Your task to perform on an android device: manage bookmarks in the chrome app Image 0: 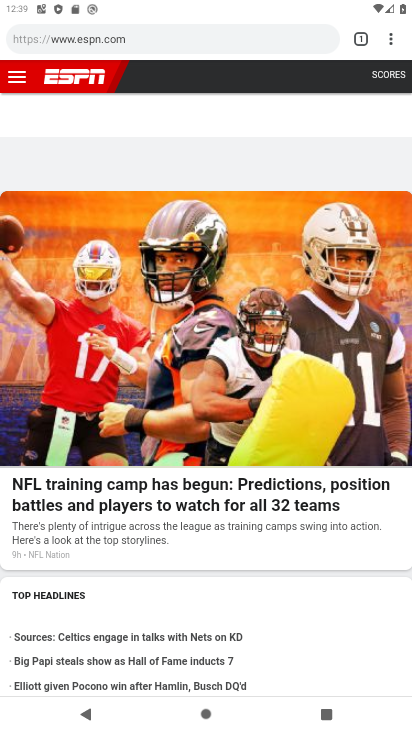
Step 0: press home button
Your task to perform on an android device: manage bookmarks in the chrome app Image 1: 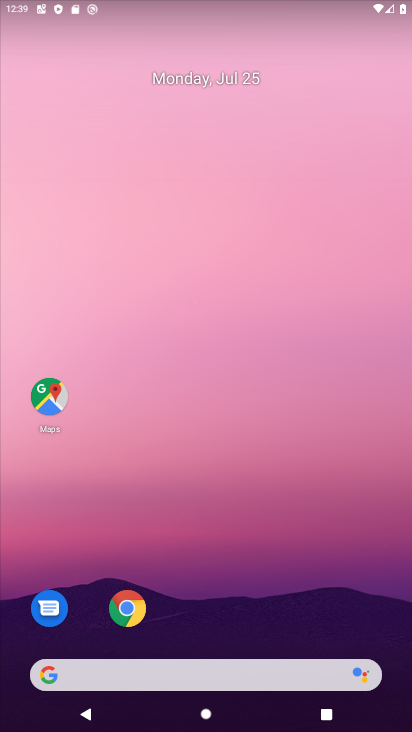
Step 1: click (125, 611)
Your task to perform on an android device: manage bookmarks in the chrome app Image 2: 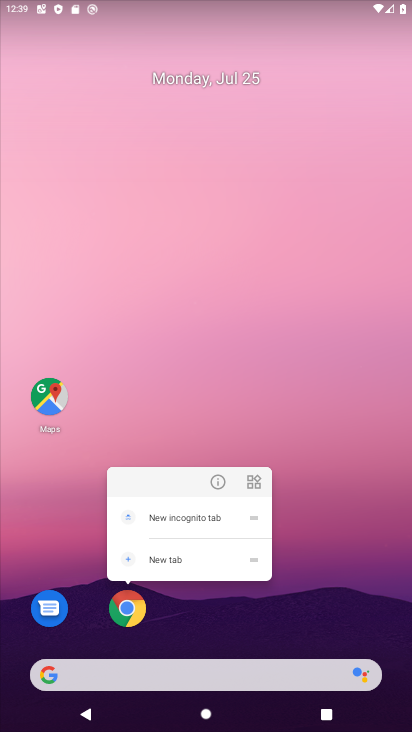
Step 2: click (125, 611)
Your task to perform on an android device: manage bookmarks in the chrome app Image 3: 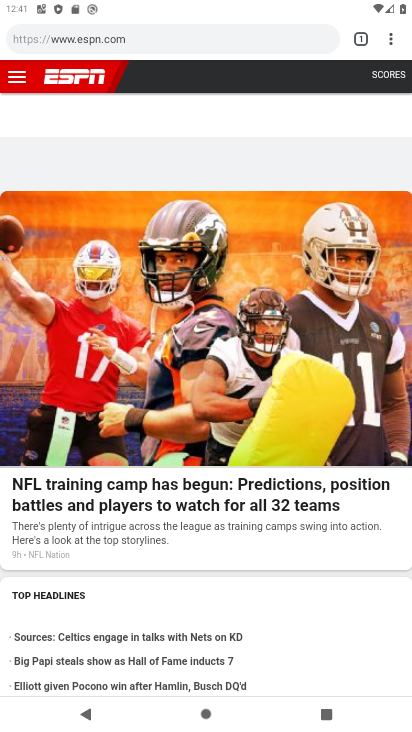
Step 3: press home button
Your task to perform on an android device: manage bookmarks in the chrome app Image 4: 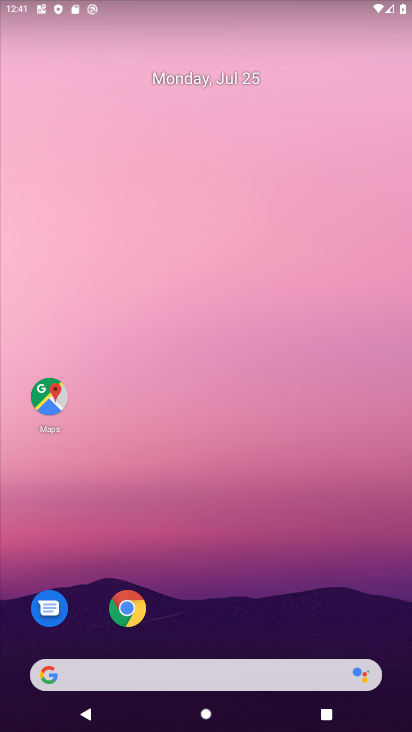
Step 4: click (130, 618)
Your task to perform on an android device: manage bookmarks in the chrome app Image 5: 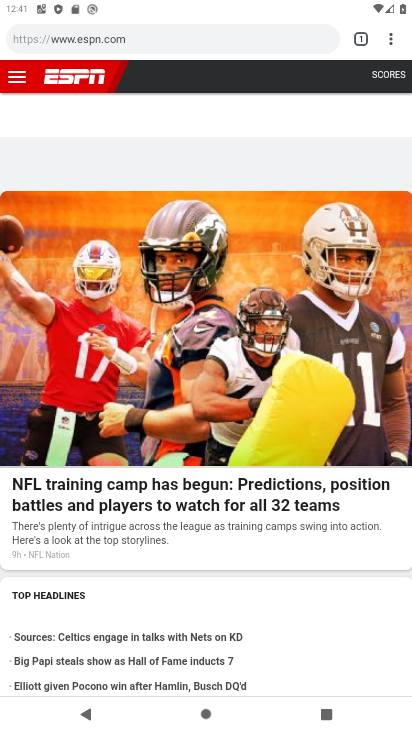
Step 5: click (389, 37)
Your task to perform on an android device: manage bookmarks in the chrome app Image 6: 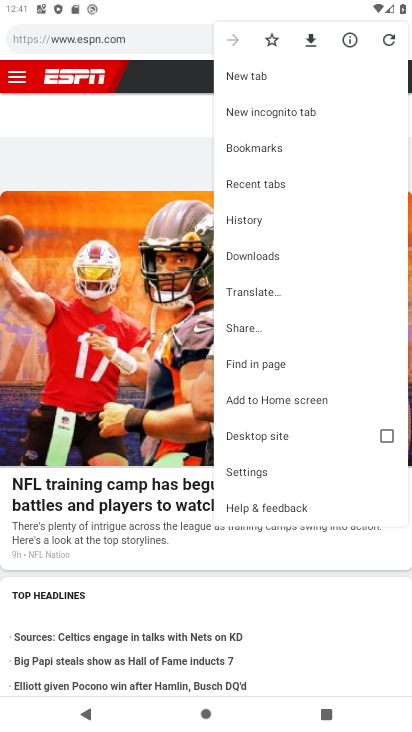
Step 6: click (268, 156)
Your task to perform on an android device: manage bookmarks in the chrome app Image 7: 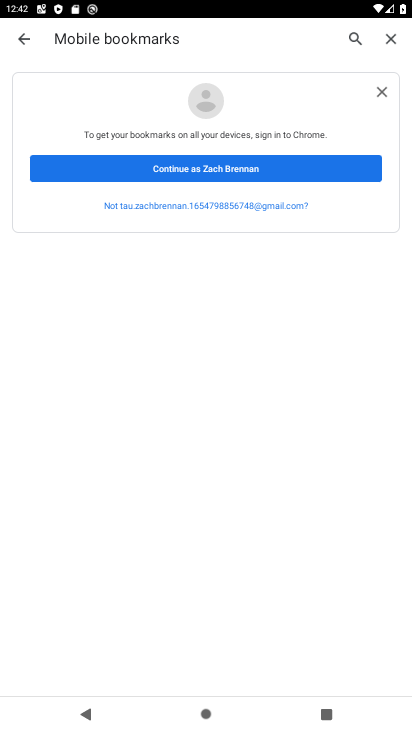
Step 7: click (209, 166)
Your task to perform on an android device: manage bookmarks in the chrome app Image 8: 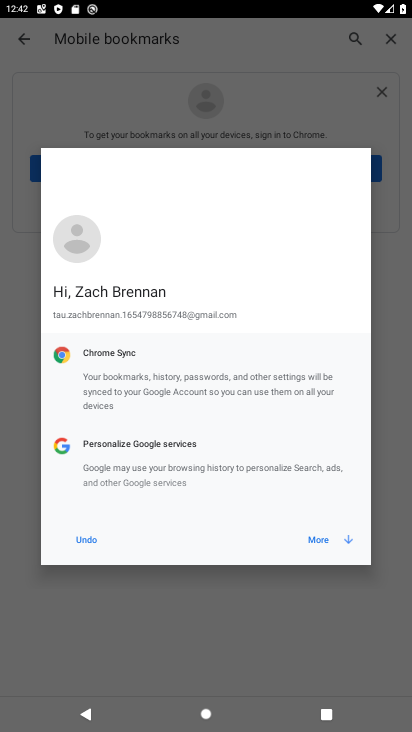
Step 8: click (319, 545)
Your task to perform on an android device: manage bookmarks in the chrome app Image 9: 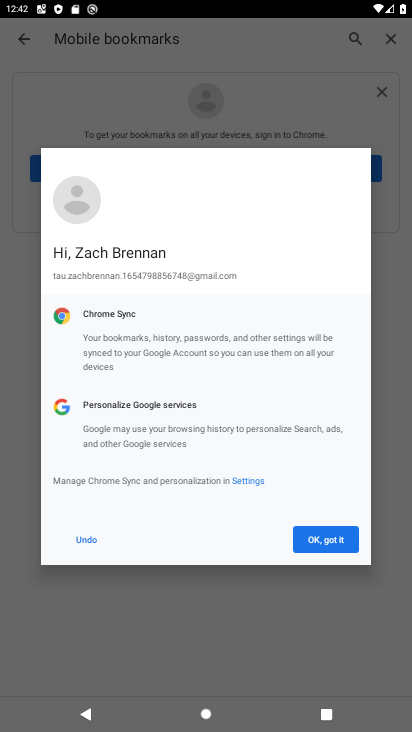
Step 9: click (319, 545)
Your task to perform on an android device: manage bookmarks in the chrome app Image 10: 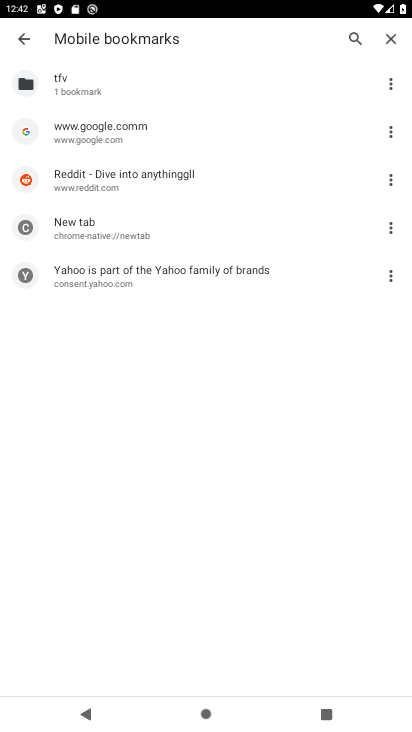
Step 10: click (394, 272)
Your task to perform on an android device: manage bookmarks in the chrome app Image 11: 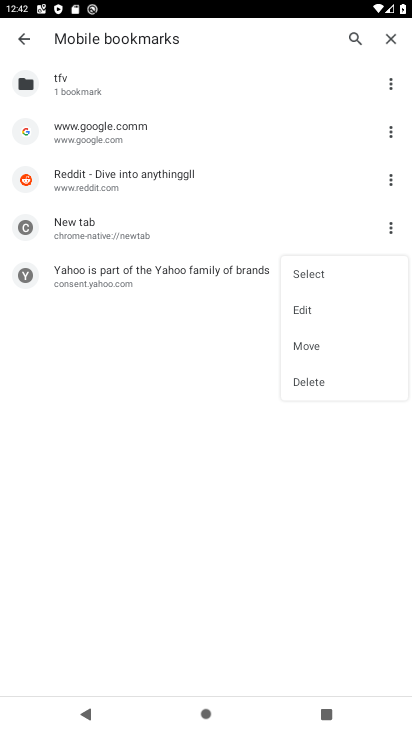
Step 11: click (300, 349)
Your task to perform on an android device: manage bookmarks in the chrome app Image 12: 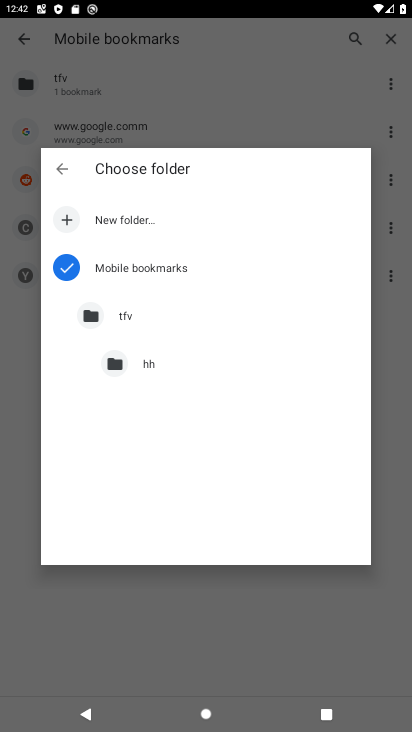
Step 12: click (108, 328)
Your task to perform on an android device: manage bookmarks in the chrome app Image 13: 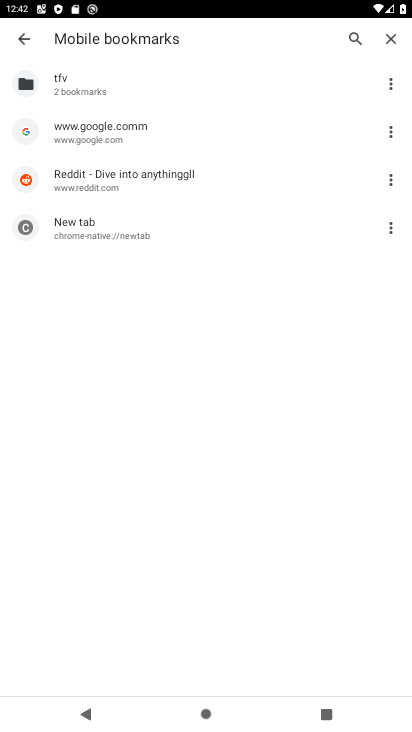
Step 13: task complete